Your task to perform on an android device: clear all cookies in the chrome app Image 0: 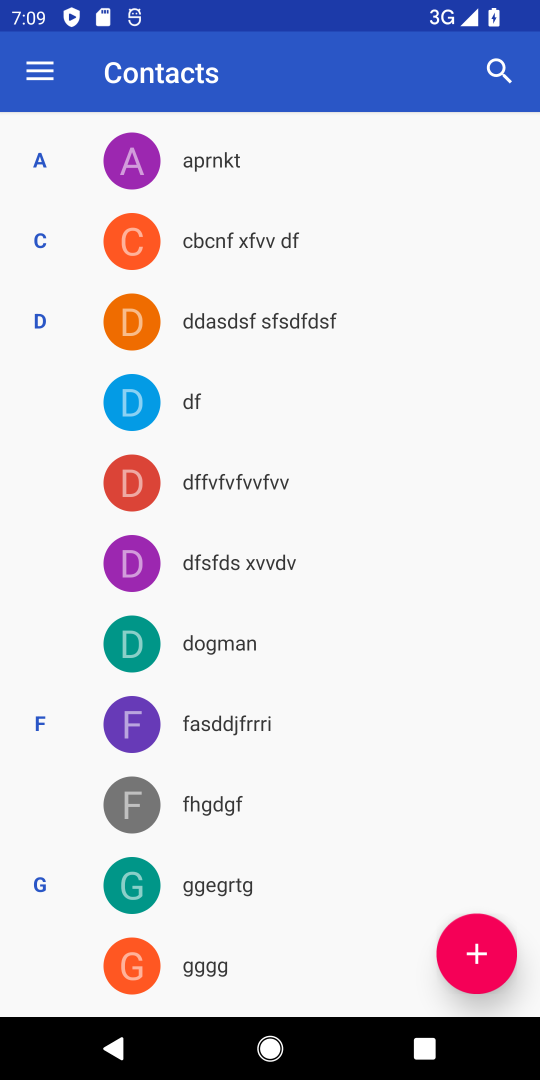
Step 0: press home button
Your task to perform on an android device: clear all cookies in the chrome app Image 1: 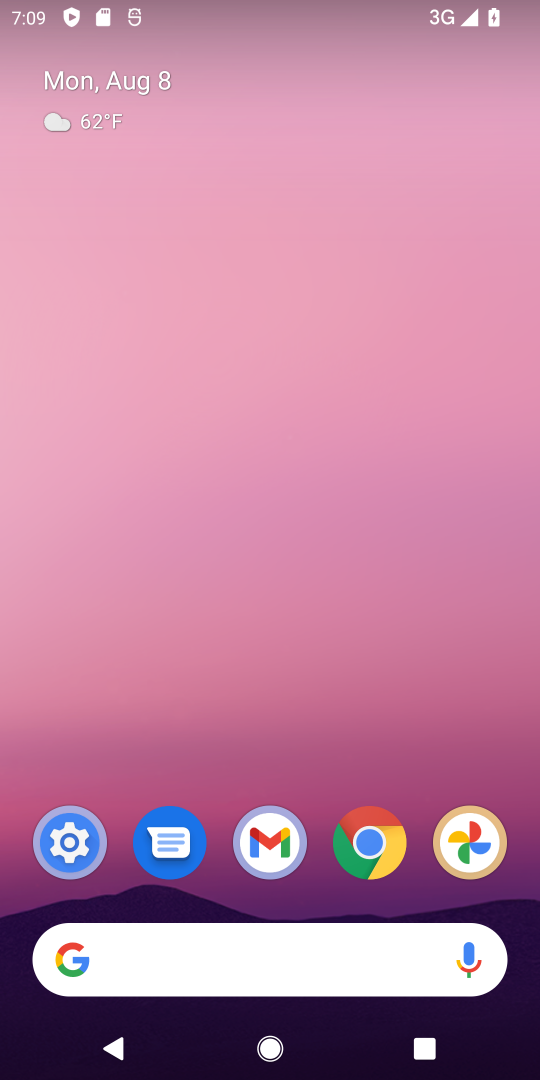
Step 1: drag from (289, 777) to (231, 140)
Your task to perform on an android device: clear all cookies in the chrome app Image 2: 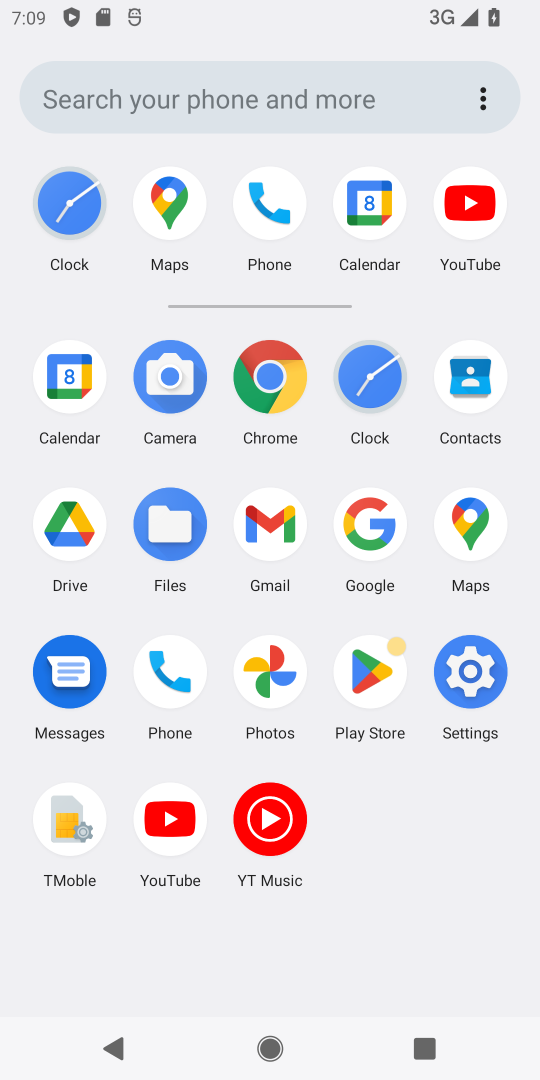
Step 2: click (273, 379)
Your task to perform on an android device: clear all cookies in the chrome app Image 3: 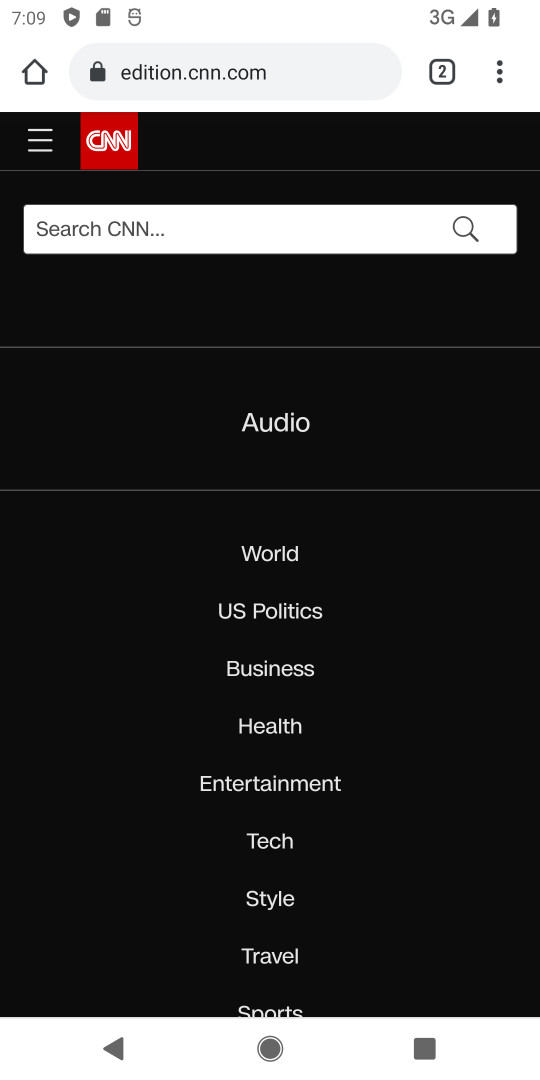
Step 3: drag from (509, 61) to (265, 851)
Your task to perform on an android device: clear all cookies in the chrome app Image 4: 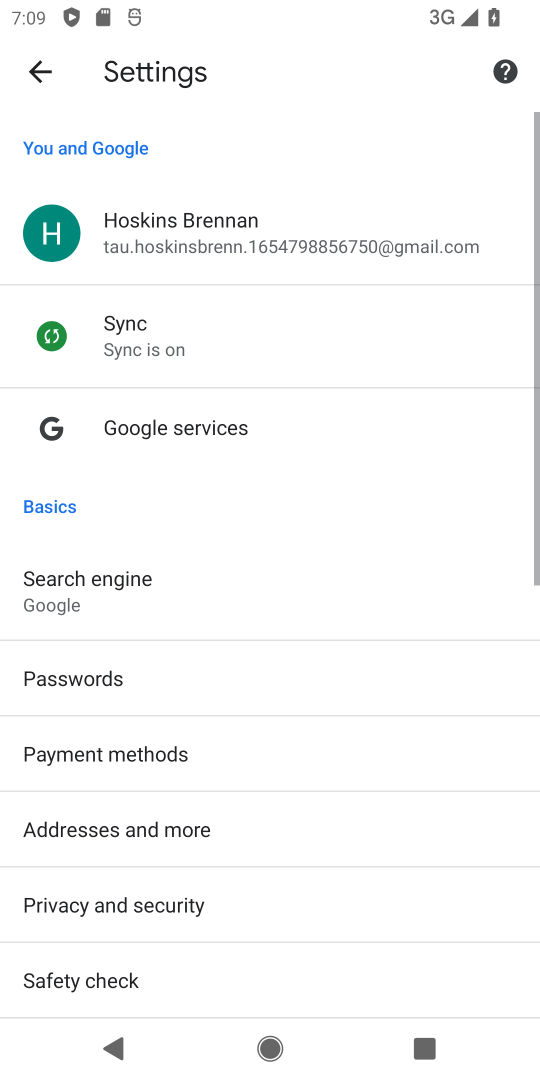
Step 4: drag from (302, 884) to (261, 173)
Your task to perform on an android device: clear all cookies in the chrome app Image 5: 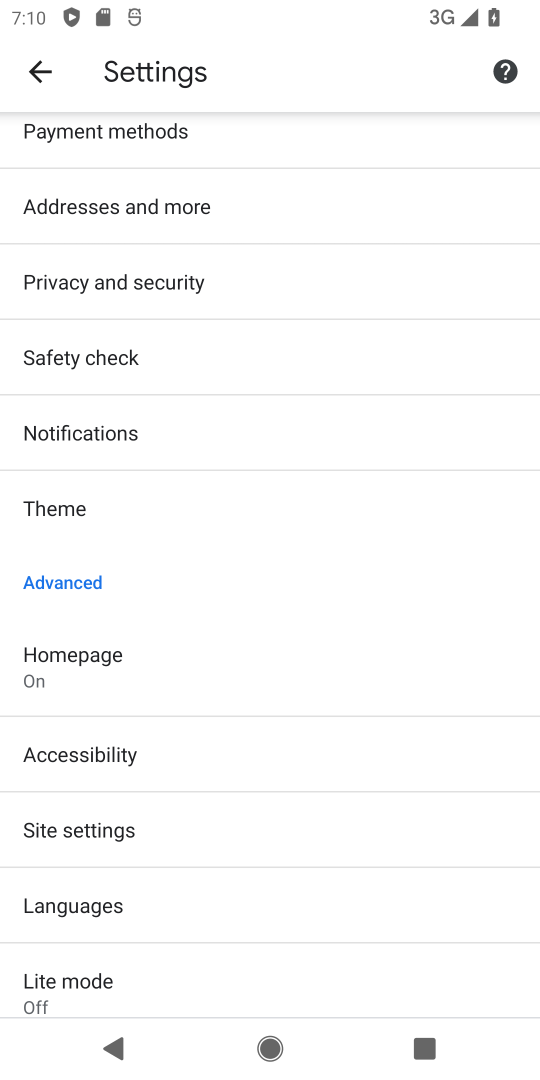
Step 5: drag from (153, 883) to (149, 231)
Your task to perform on an android device: clear all cookies in the chrome app Image 6: 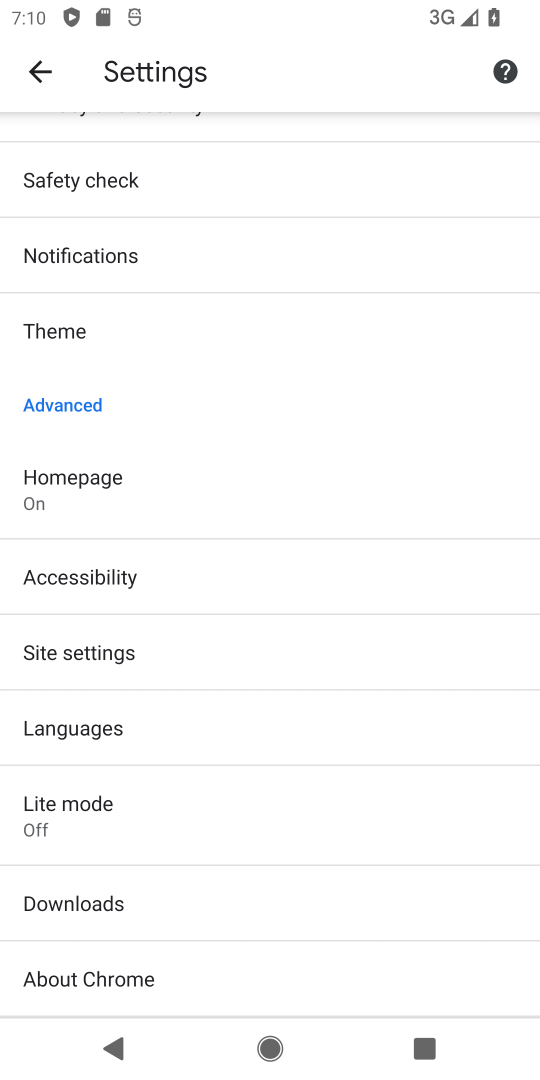
Step 6: drag from (127, 386) to (113, 936)
Your task to perform on an android device: clear all cookies in the chrome app Image 7: 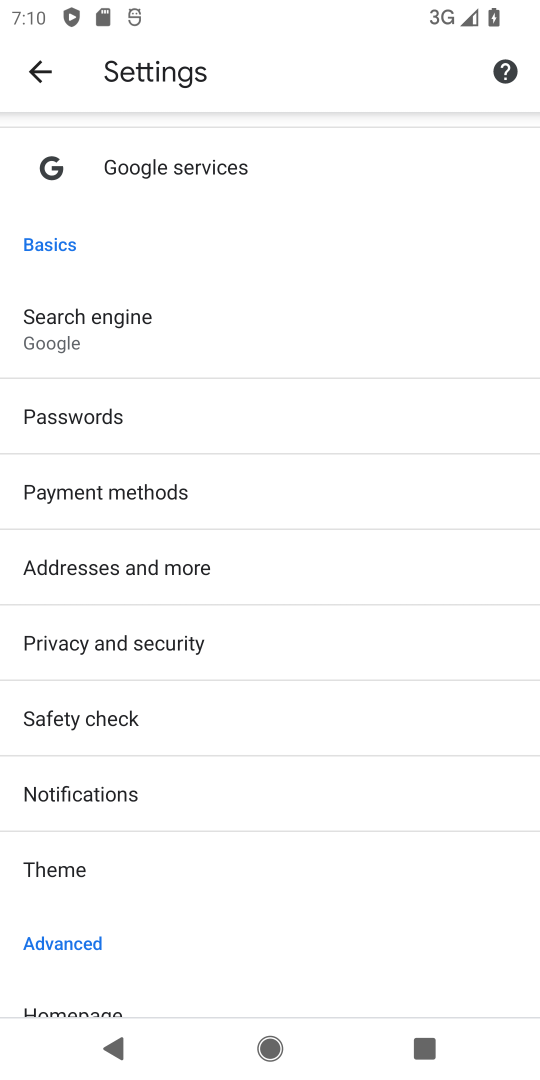
Step 7: click (124, 664)
Your task to perform on an android device: clear all cookies in the chrome app Image 8: 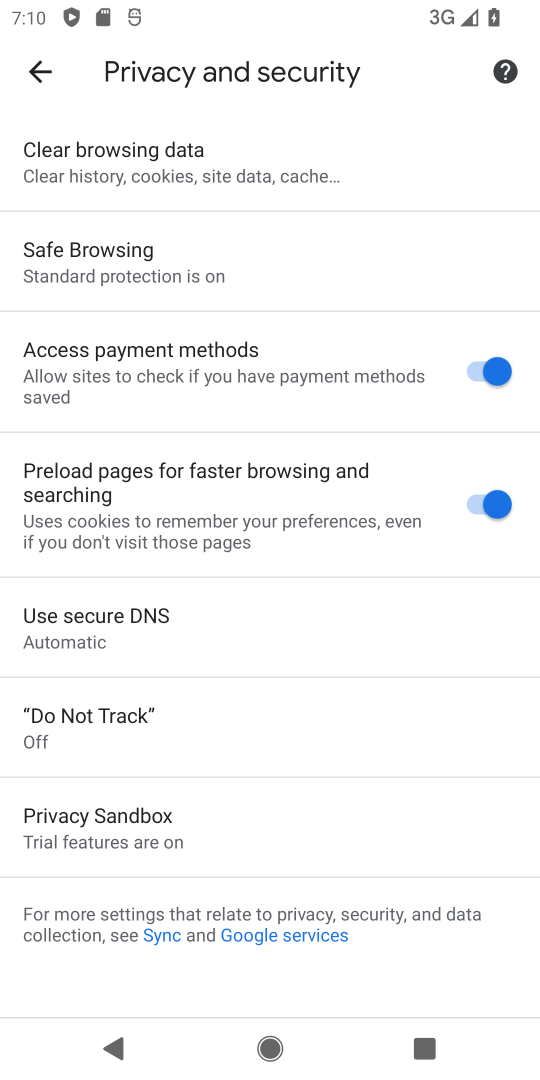
Step 8: drag from (158, 632) to (141, 869)
Your task to perform on an android device: clear all cookies in the chrome app Image 9: 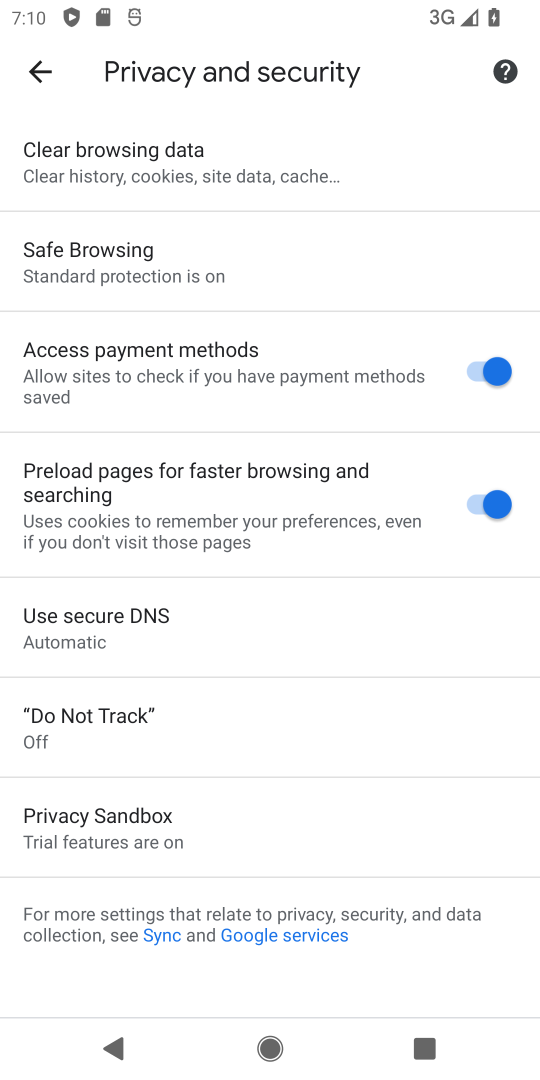
Step 9: click (140, 144)
Your task to perform on an android device: clear all cookies in the chrome app Image 10: 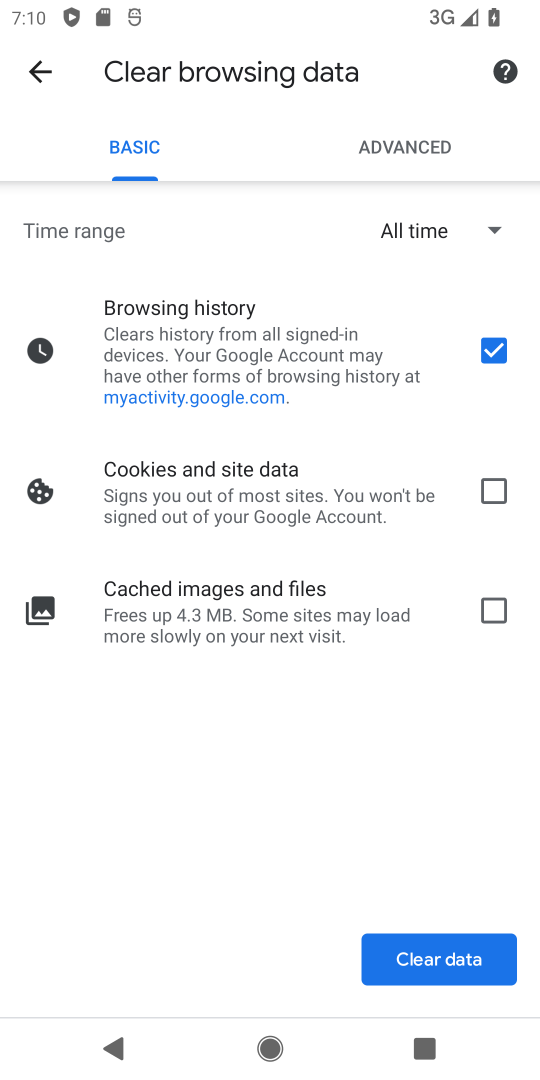
Step 10: click (469, 495)
Your task to perform on an android device: clear all cookies in the chrome app Image 11: 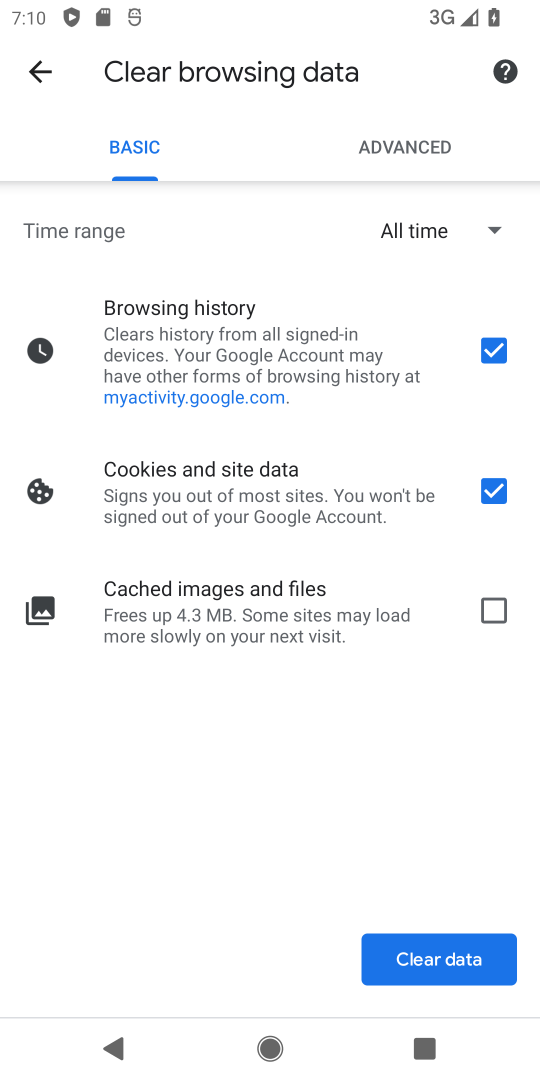
Step 11: click (480, 603)
Your task to perform on an android device: clear all cookies in the chrome app Image 12: 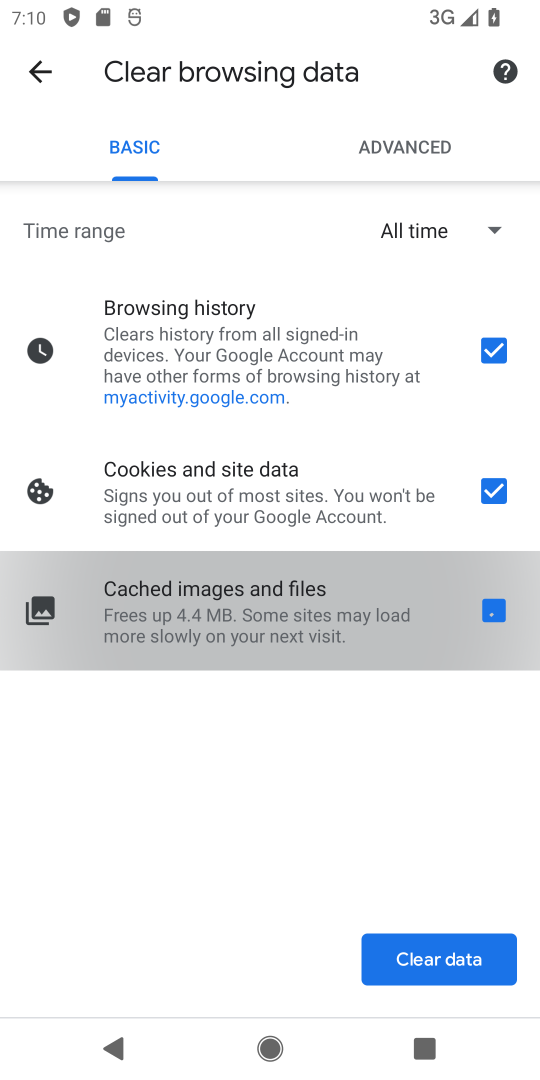
Step 12: click (417, 962)
Your task to perform on an android device: clear all cookies in the chrome app Image 13: 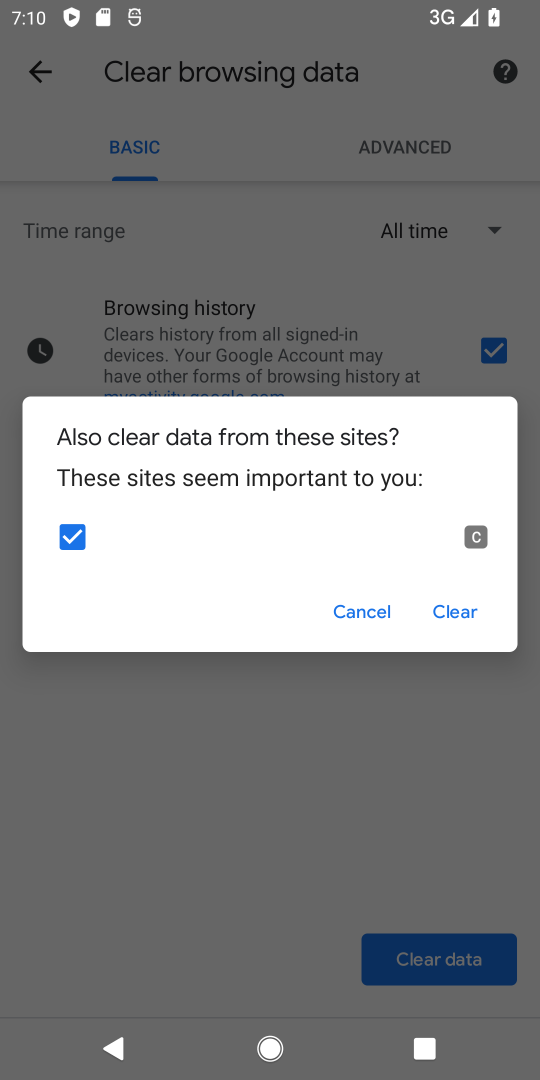
Step 13: click (446, 612)
Your task to perform on an android device: clear all cookies in the chrome app Image 14: 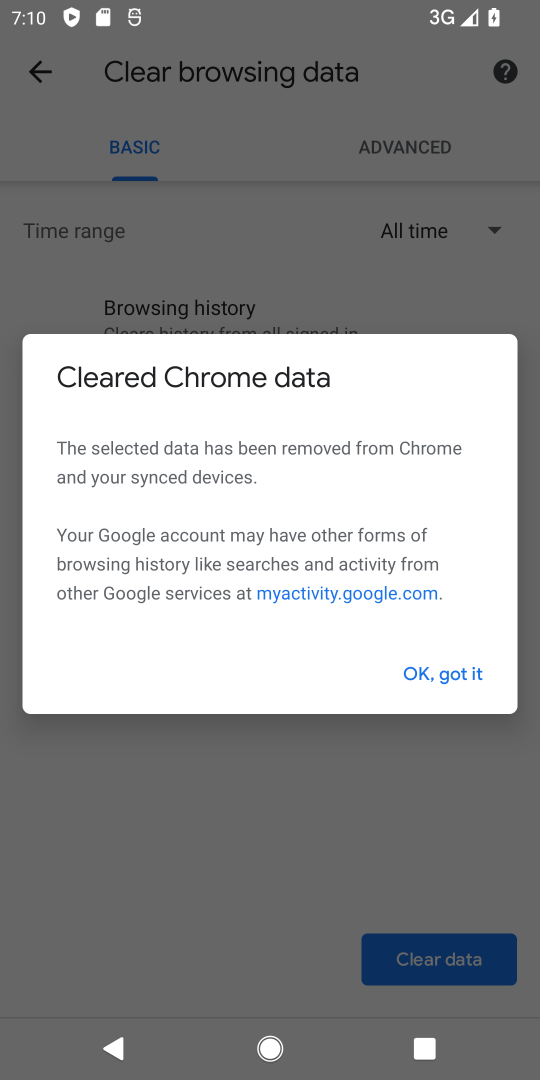
Step 14: click (433, 678)
Your task to perform on an android device: clear all cookies in the chrome app Image 15: 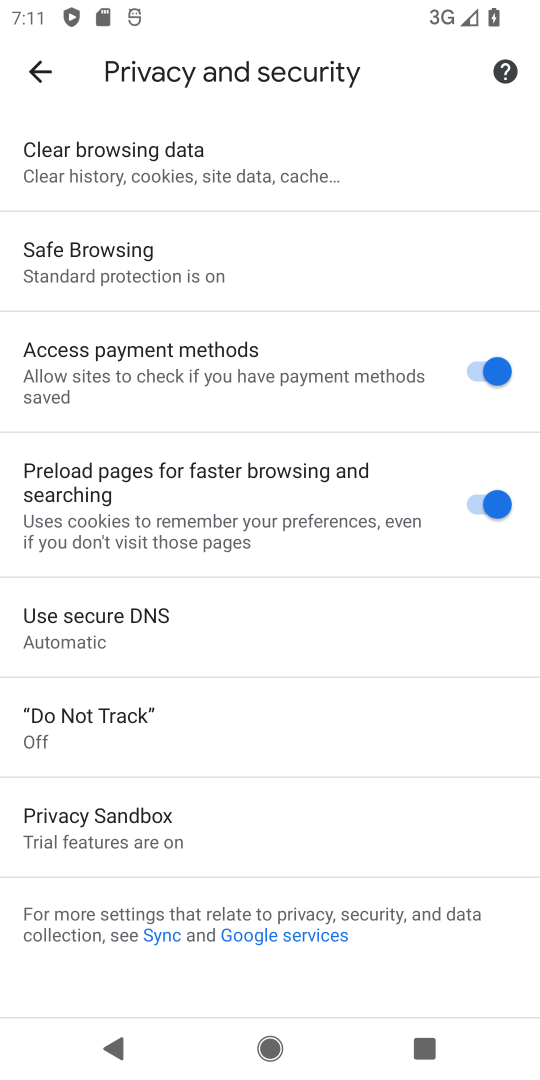
Step 15: click (85, 163)
Your task to perform on an android device: clear all cookies in the chrome app Image 16: 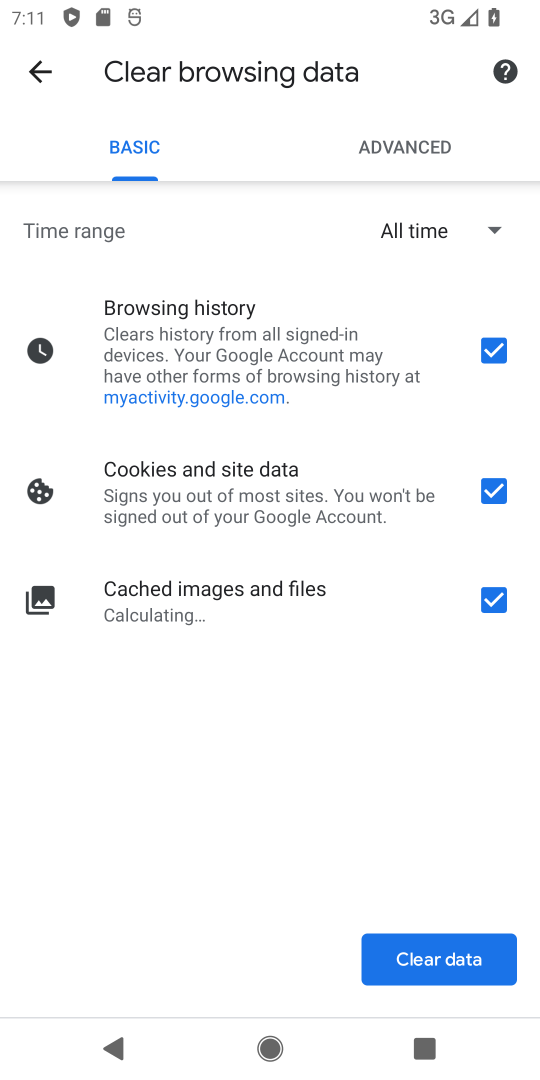
Step 16: task complete